Your task to perform on an android device: change text size in settings app Image 0: 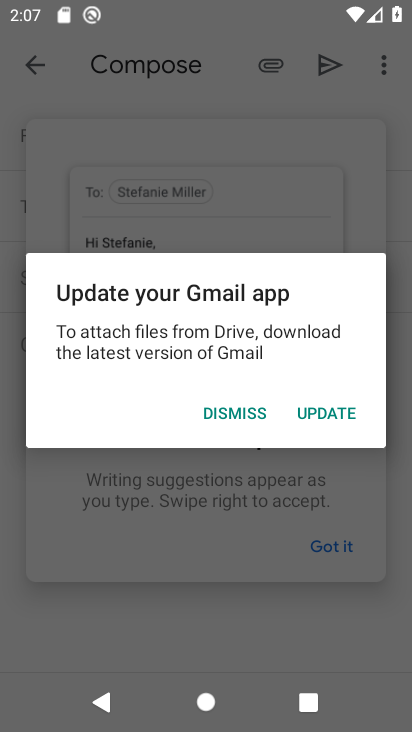
Step 0: press home button
Your task to perform on an android device: change text size in settings app Image 1: 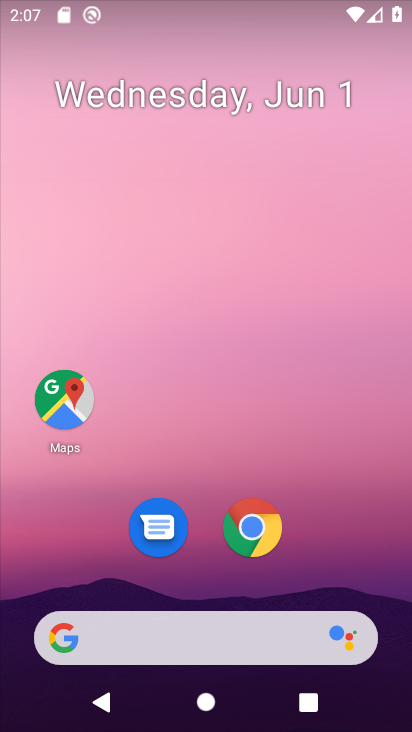
Step 1: drag from (200, 465) to (247, 230)
Your task to perform on an android device: change text size in settings app Image 2: 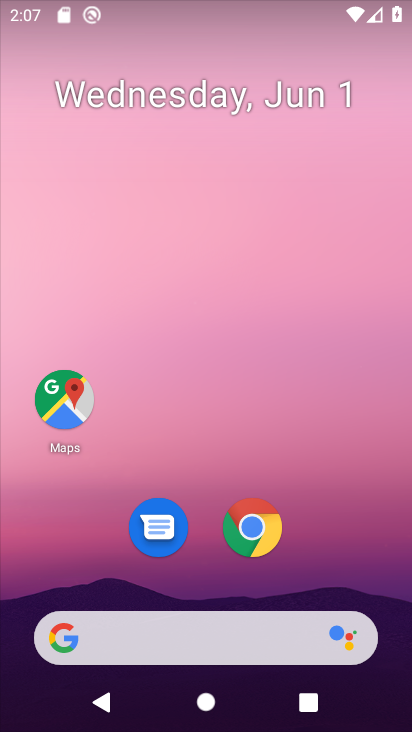
Step 2: drag from (249, 573) to (249, 257)
Your task to perform on an android device: change text size in settings app Image 3: 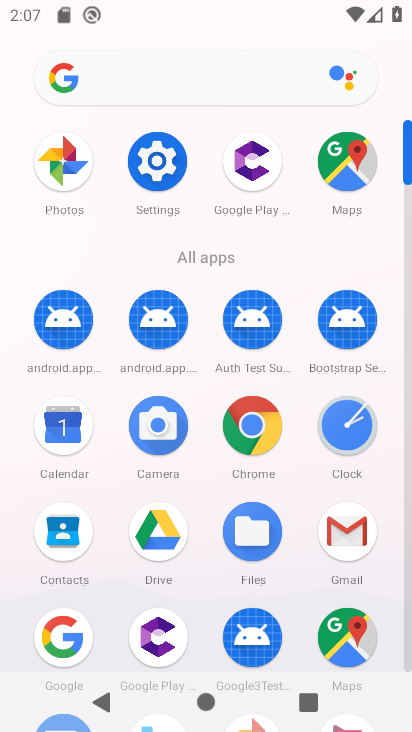
Step 3: click (163, 174)
Your task to perform on an android device: change text size in settings app Image 4: 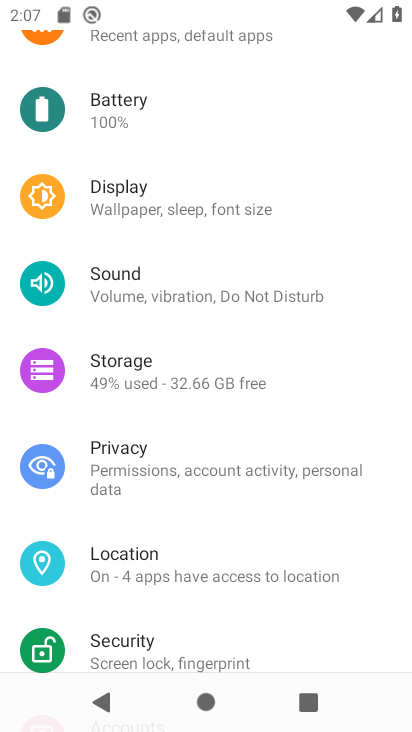
Step 4: drag from (158, 628) to (214, 377)
Your task to perform on an android device: change text size in settings app Image 5: 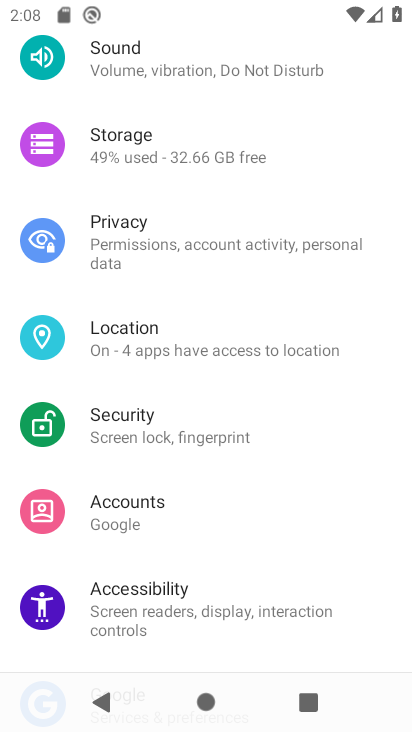
Step 5: click (157, 596)
Your task to perform on an android device: change text size in settings app Image 6: 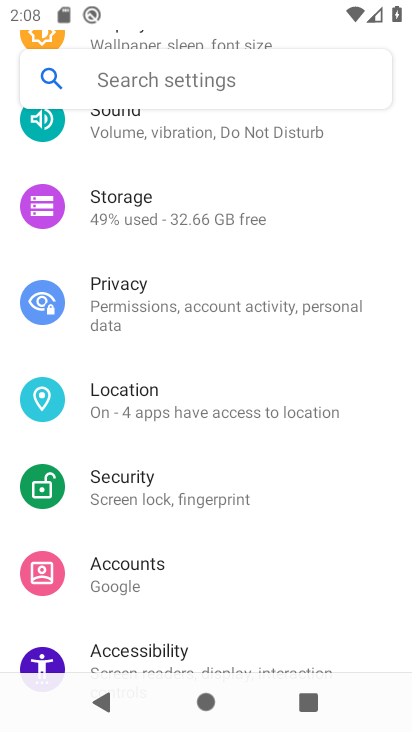
Step 6: drag from (163, 237) to (150, 441)
Your task to perform on an android device: change text size in settings app Image 7: 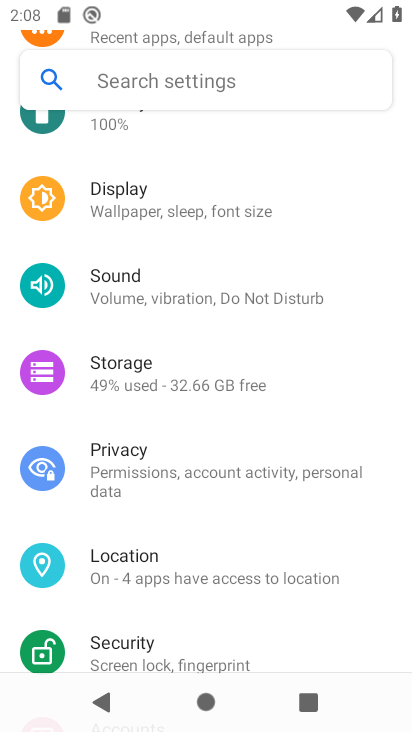
Step 7: click (158, 211)
Your task to perform on an android device: change text size in settings app Image 8: 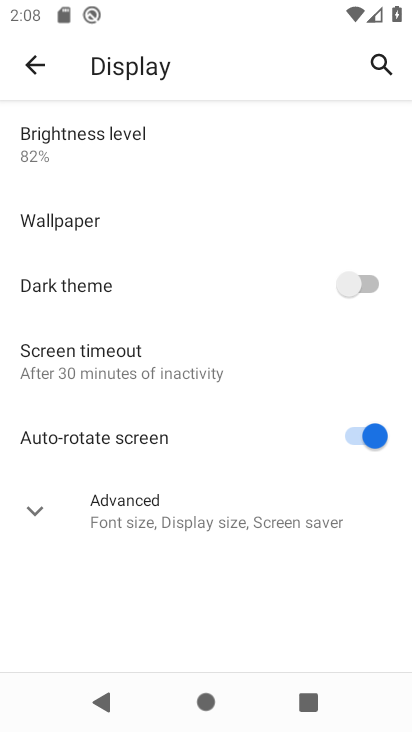
Step 8: click (102, 497)
Your task to perform on an android device: change text size in settings app Image 9: 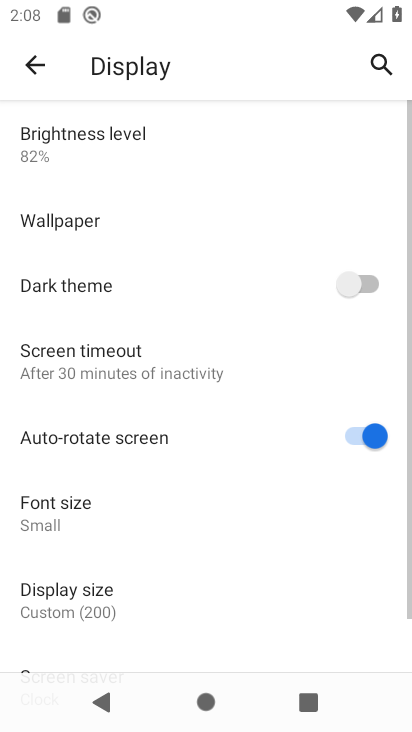
Step 9: click (90, 523)
Your task to perform on an android device: change text size in settings app Image 10: 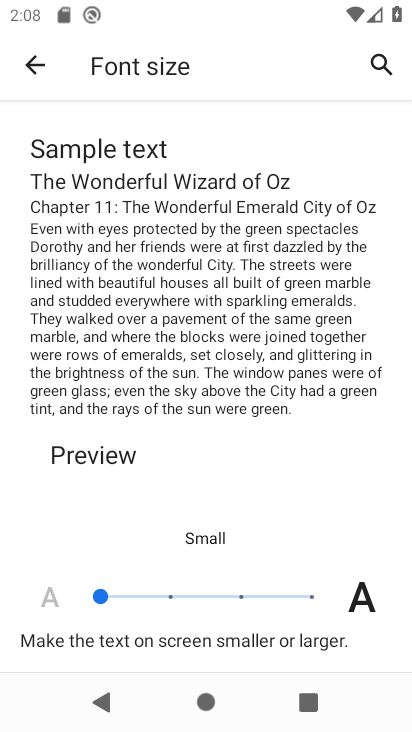
Step 10: click (166, 600)
Your task to perform on an android device: change text size in settings app Image 11: 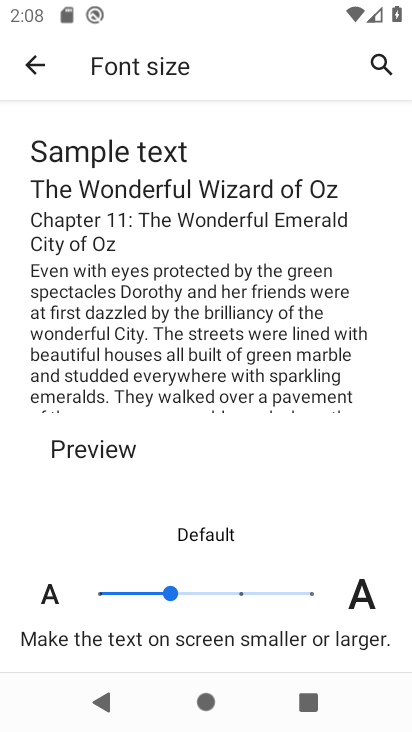
Step 11: task complete